Your task to perform on an android device: Go to Reddit.com Image 0: 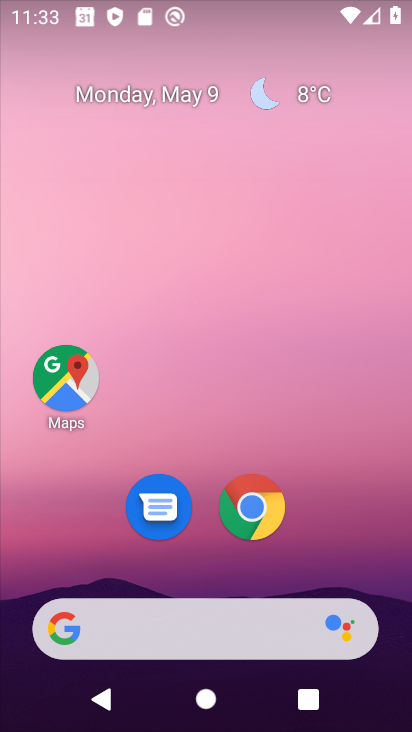
Step 0: click (247, 505)
Your task to perform on an android device: Go to Reddit.com Image 1: 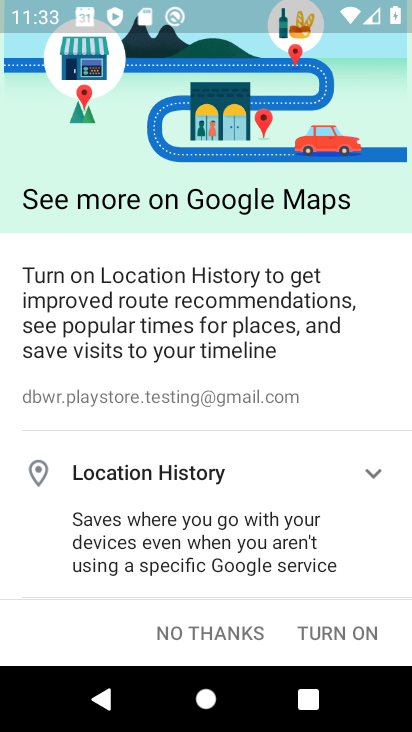
Step 1: press home button
Your task to perform on an android device: Go to Reddit.com Image 2: 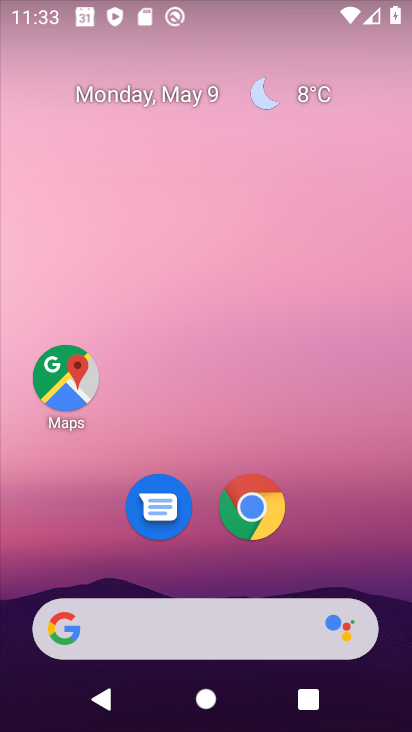
Step 2: click (261, 498)
Your task to perform on an android device: Go to Reddit.com Image 3: 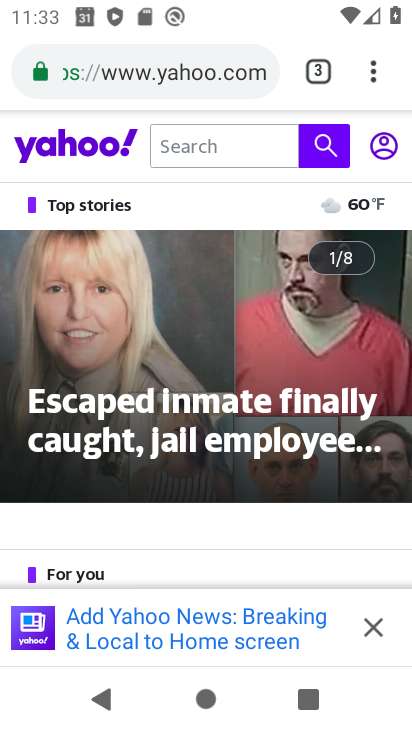
Step 3: click (314, 68)
Your task to perform on an android device: Go to Reddit.com Image 4: 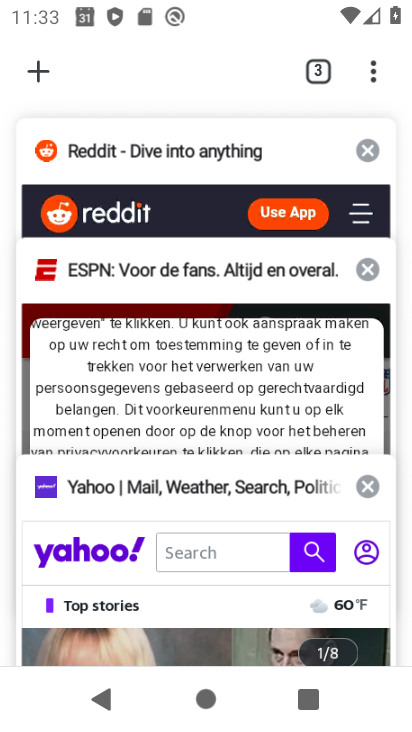
Step 4: click (184, 185)
Your task to perform on an android device: Go to Reddit.com Image 5: 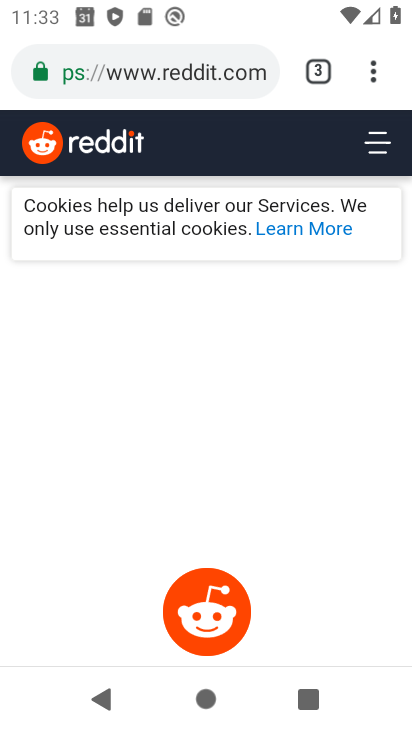
Step 5: task complete